Your task to perform on an android device: Open Google Chrome and click the shortcut for Amazon.com Image 0: 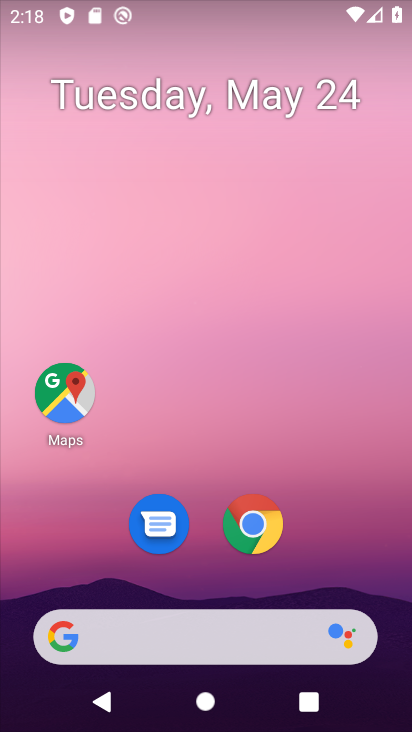
Step 0: click (252, 514)
Your task to perform on an android device: Open Google Chrome and click the shortcut for Amazon.com Image 1: 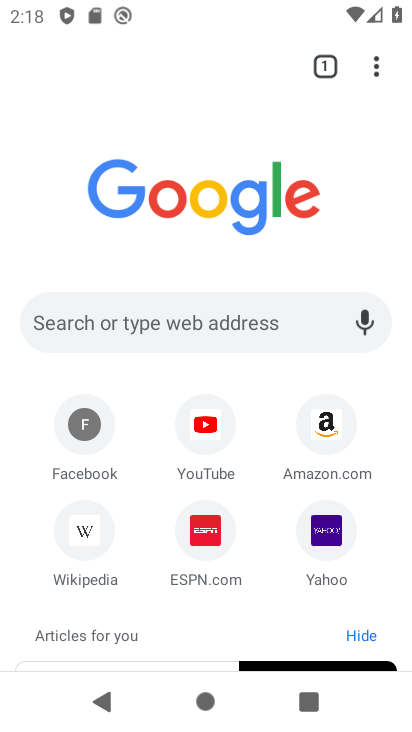
Step 1: click (325, 430)
Your task to perform on an android device: Open Google Chrome and click the shortcut for Amazon.com Image 2: 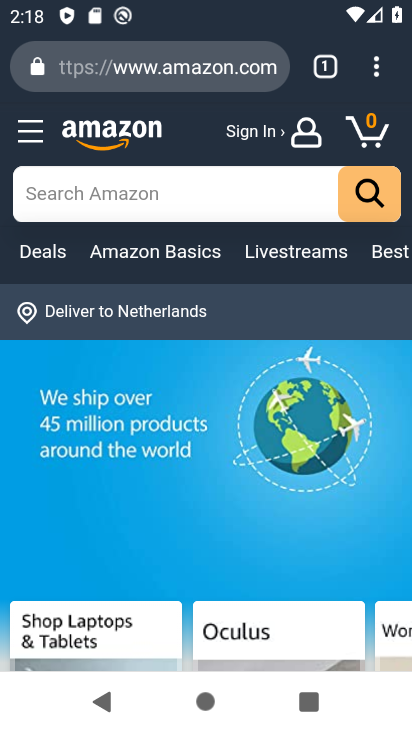
Step 2: task complete